Your task to perform on an android device: find photos in the google photos app Image 0: 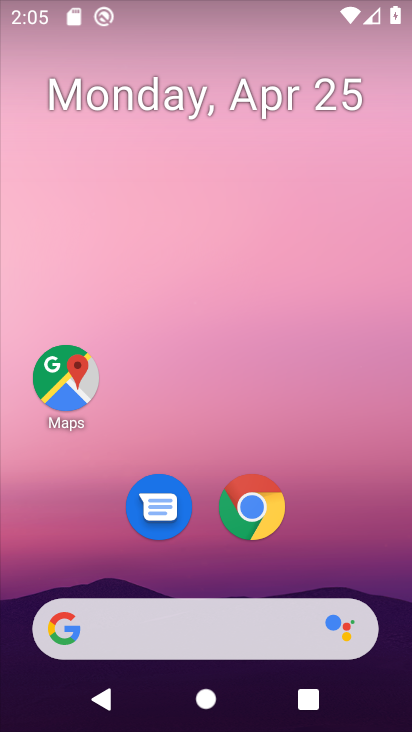
Step 0: drag from (163, 629) to (272, 189)
Your task to perform on an android device: find photos in the google photos app Image 1: 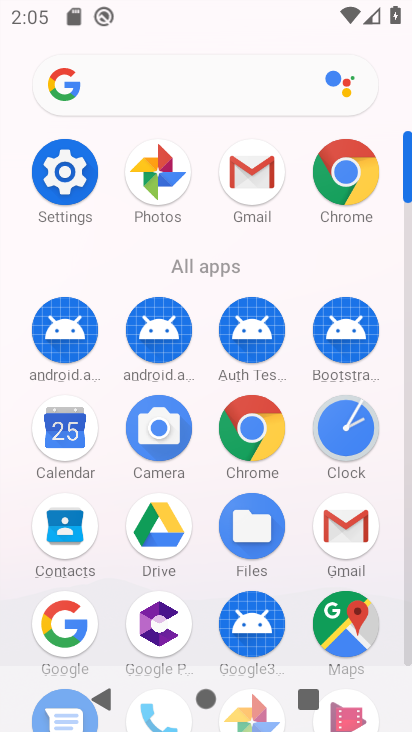
Step 1: click (167, 167)
Your task to perform on an android device: find photos in the google photos app Image 2: 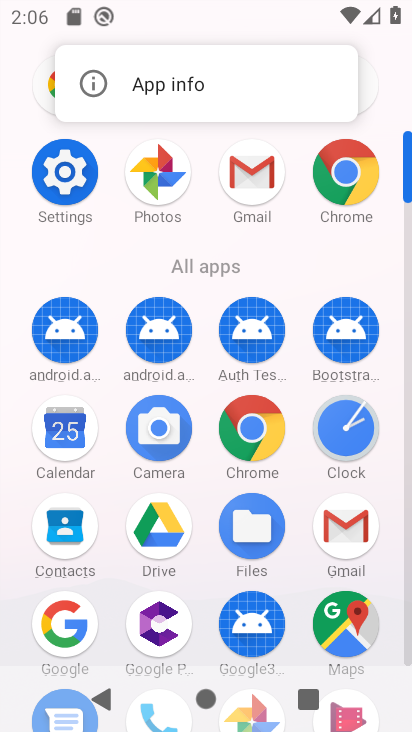
Step 2: click (153, 176)
Your task to perform on an android device: find photos in the google photos app Image 3: 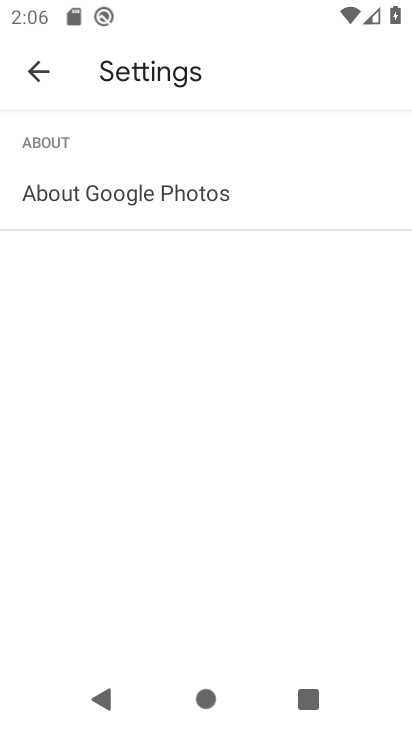
Step 3: click (42, 67)
Your task to perform on an android device: find photos in the google photos app Image 4: 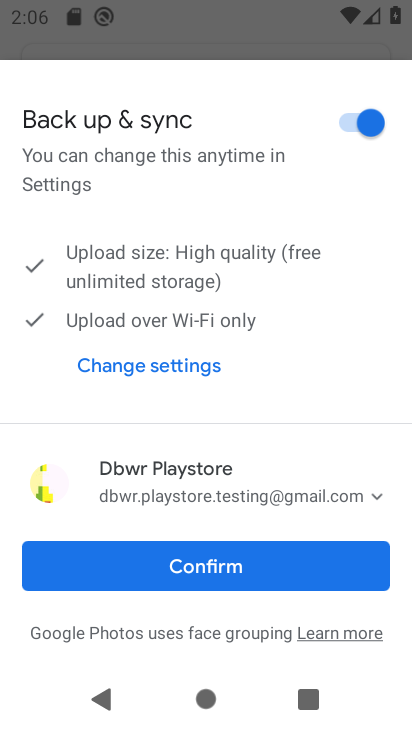
Step 4: click (218, 569)
Your task to perform on an android device: find photos in the google photos app Image 5: 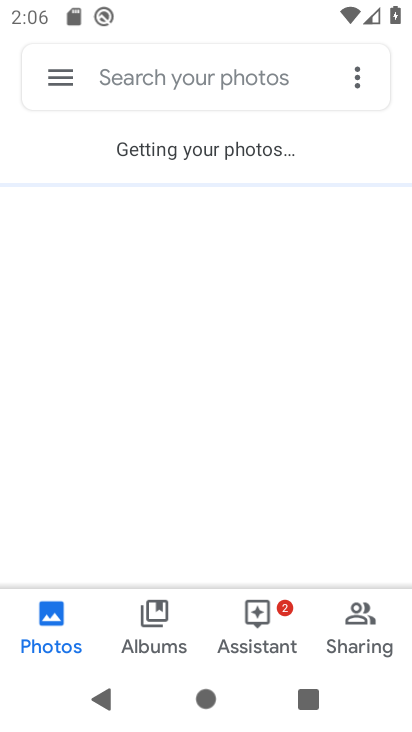
Step 5: task complete